Your task to perform on an android device: turn off notifications in google photos Image 0: 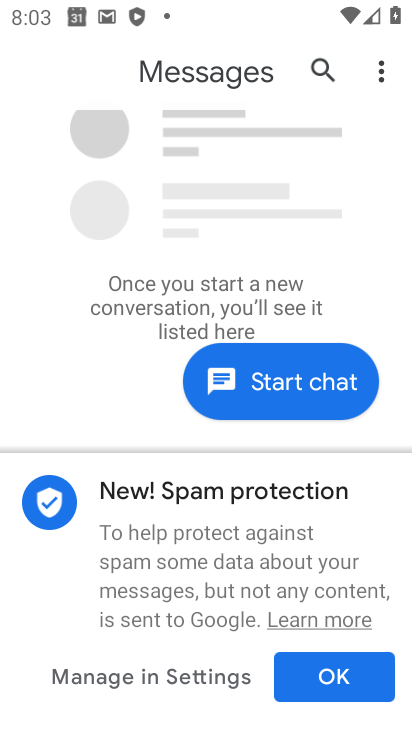
Step 0: press home button
Your task to perform on an android device: turn off notifications in google photos Image 1: 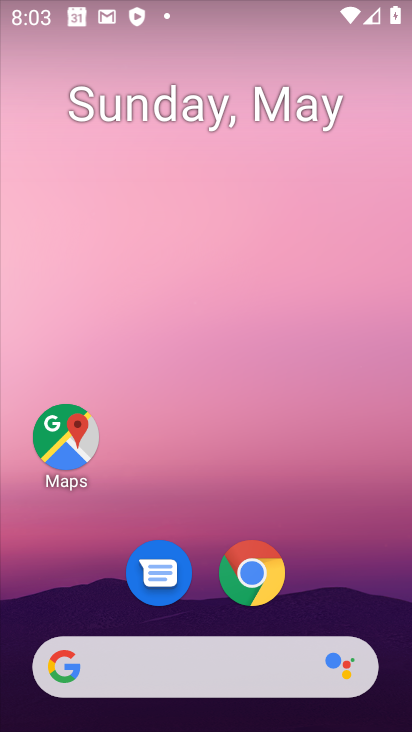
Step 1: drag from (197, 467) to (243, 0)
Your task to perform on an android device: turn off notifications in google photos Image 2: 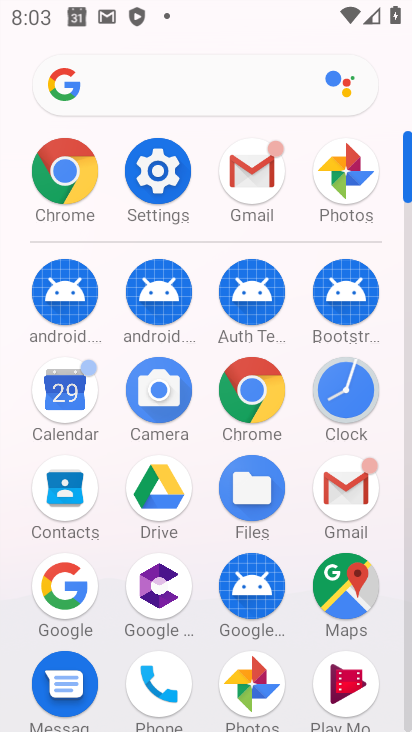
Step 2: click (159, 163)
Your task to perform on an android device: turn off notifications in google photos Image 3: 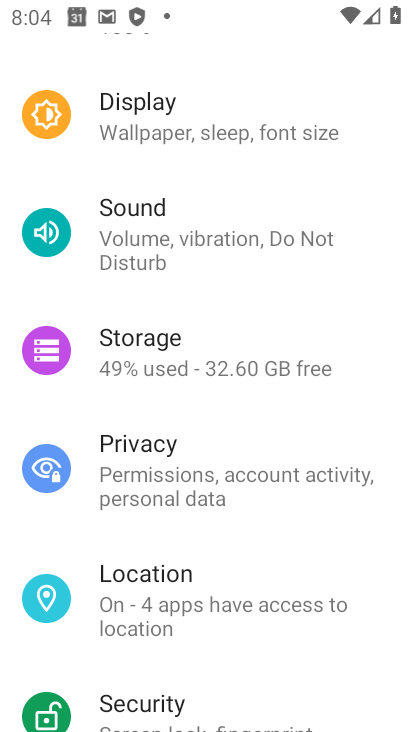
Step 3: drag from (215, 182) to (283, 670)
Your task to perform on an android device: turn off notifications in google photos Image 4: 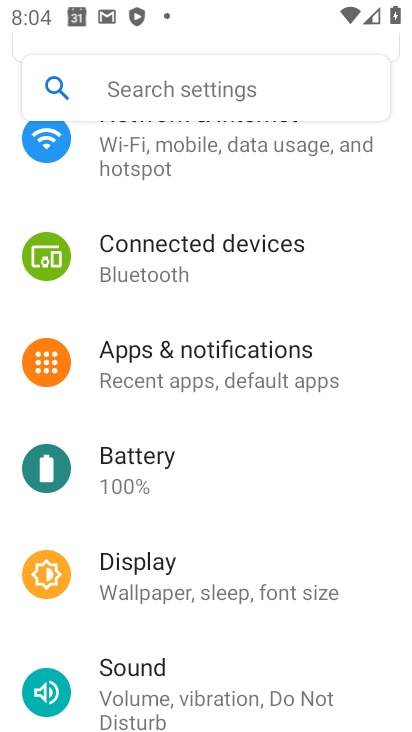
Step 4: click (243, 358)
Your task to perform on an android device: turn off notifications in google photos Image 5: 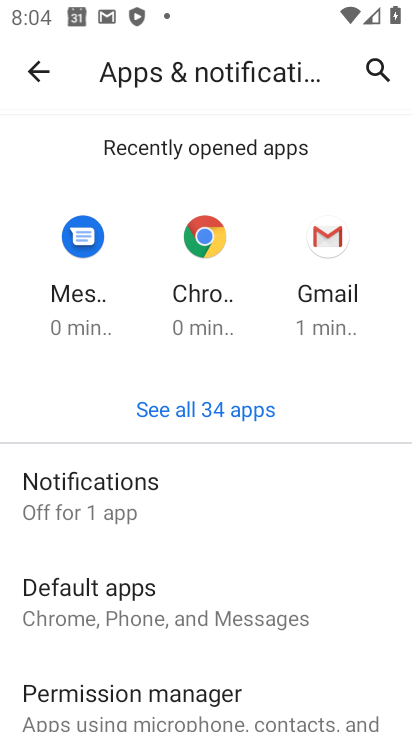
Step 5: click (248, 407)
Your task to perform on an android device: turn off notifications in google photos Image 6: 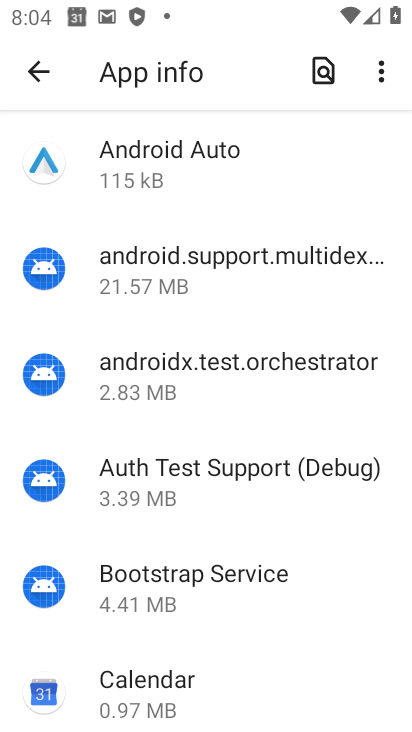
Step 6: drag from (248, 531) to (244, 151)
Your task to perform on an android device: turn off notifications in google photos Image 7: 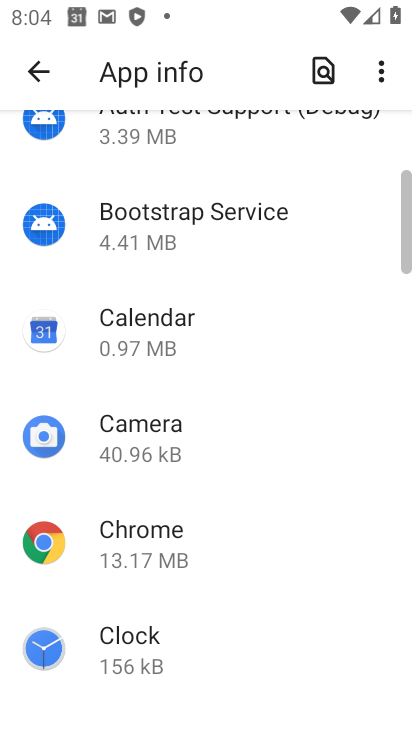
Step 7: drag from (266, 525) to (246, 131)
Your task to perform on an android device: turn off notifications in google photos Image 8: 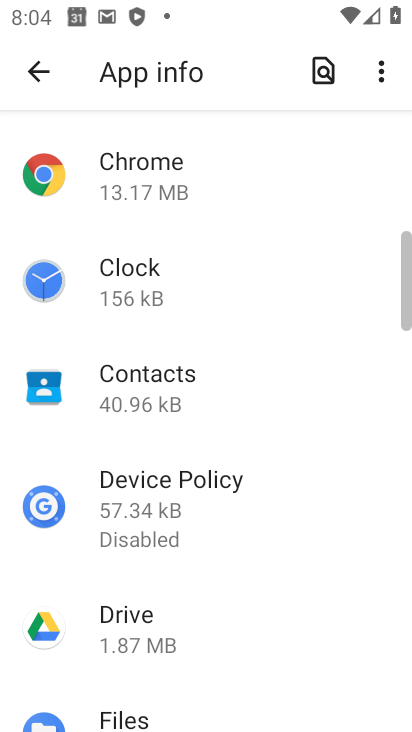
Step 8: drag from (203, 570) to (234, 162)
Your task to perform on an android device: turn off notifications in google photos Image 9: 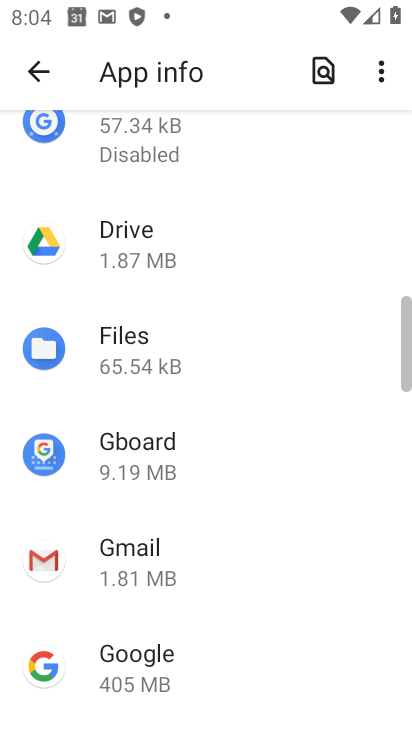
Step 9: drag from (259, 604) to (293, 251)
Your task to perform on an android device: turn off notifications in google photos Image 10: 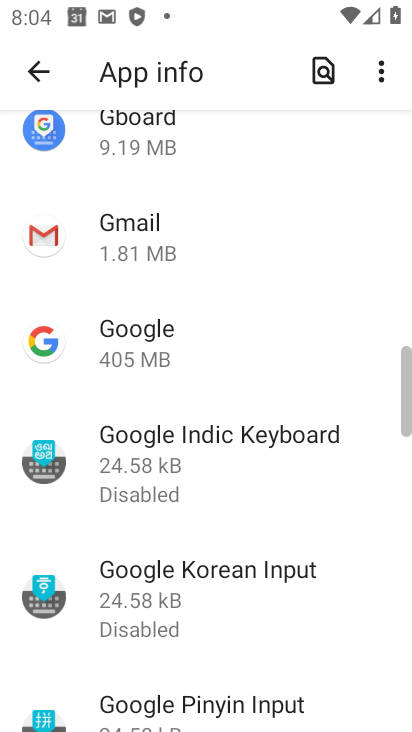
Step 10: drag from (268, 617) to (237, 226)
Your task to perform on an android device: turn off notifications in google photos Image 11: 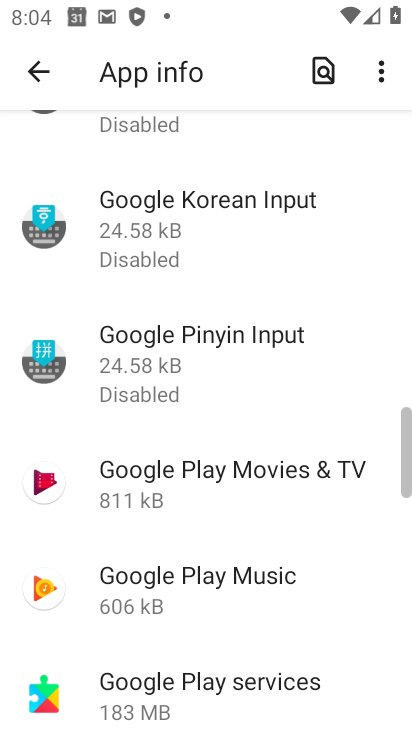
Step 11: drag from (251, 629) to (232, 172)
Your task to perform on an android device: turn off notifications in google photos Image 12: 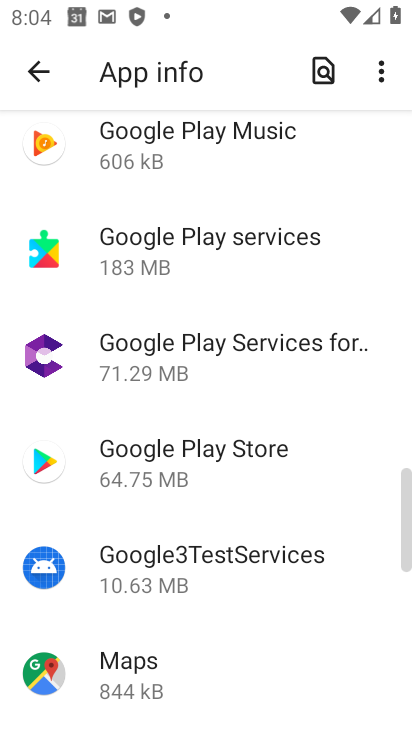
Step 12: drag from (224, 625) to (229, 41)
Your task to perform on an android device: turn off notifications in google photos Image 13: 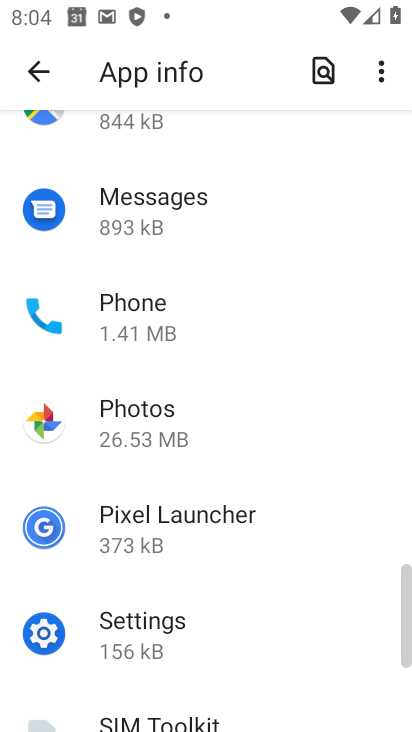
Step 13: click (171, 432)
Your task to perform on an android device: turn off notifications in google photos Image 14: 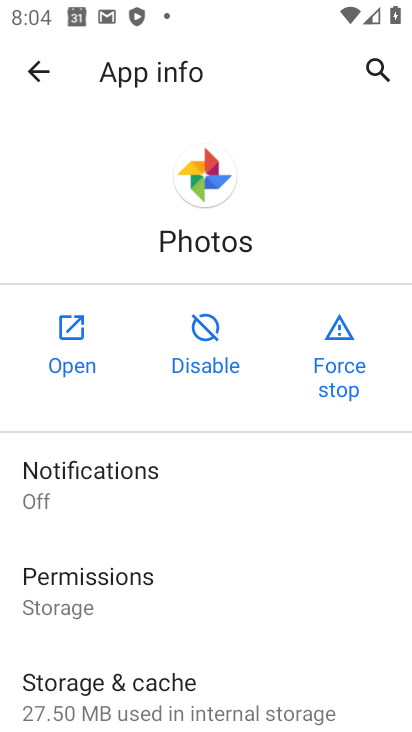
Step 14: task complete